Your task to perform on an android device: Open Chrome and go to settings Image 0: 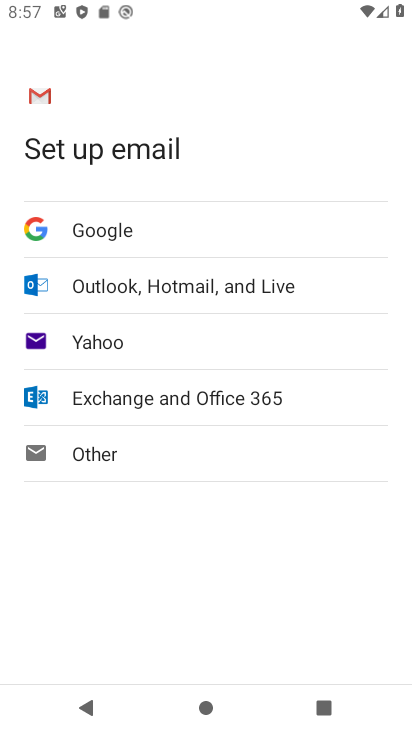
Step 0: press home button
Your task to perform on an android device: Open Chrome and go to settings Image 1: 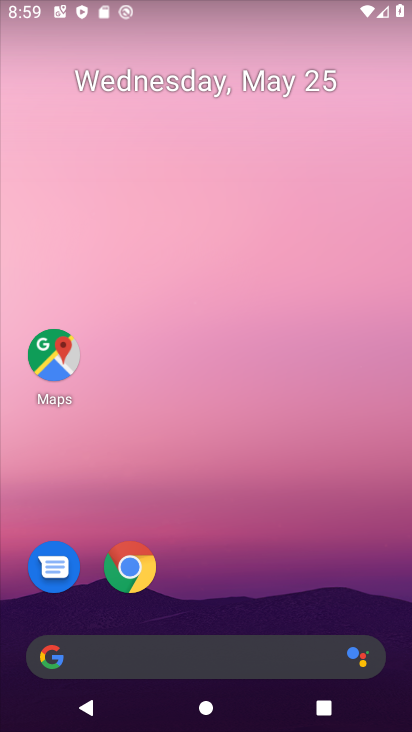
Step 1: click (144, 569)
Your task to perform on an android device: Open Chrome and go to settings Image 2: 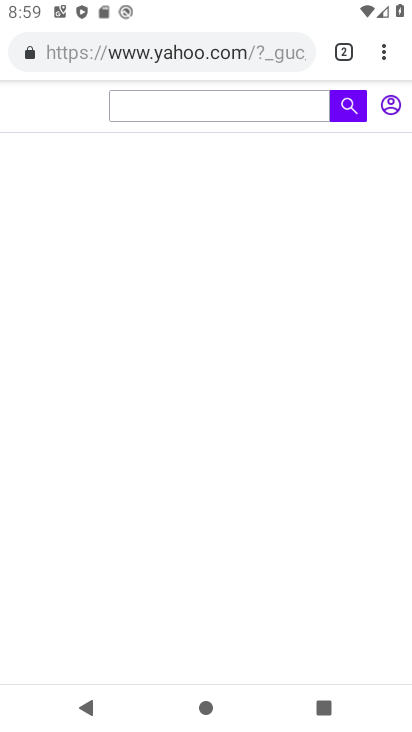
Step 2: task complete